Your task to perform on an android device: set default search engine in the chrome app Image 0: 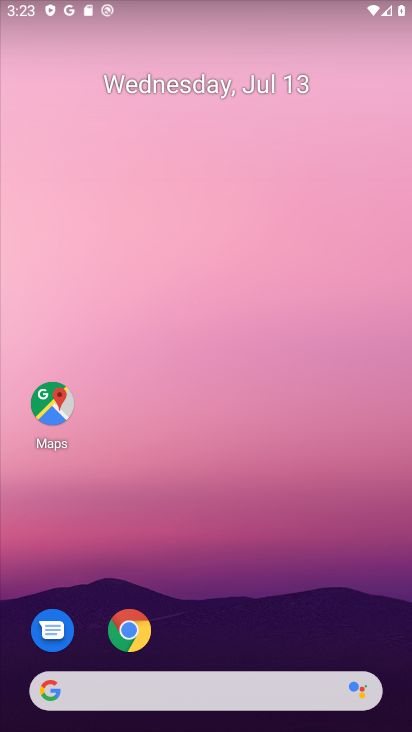
Step 0: drag from (197, 521) to (182, 112)
Your task to perform on an android device: set default search engine in the chrome app Image 1: 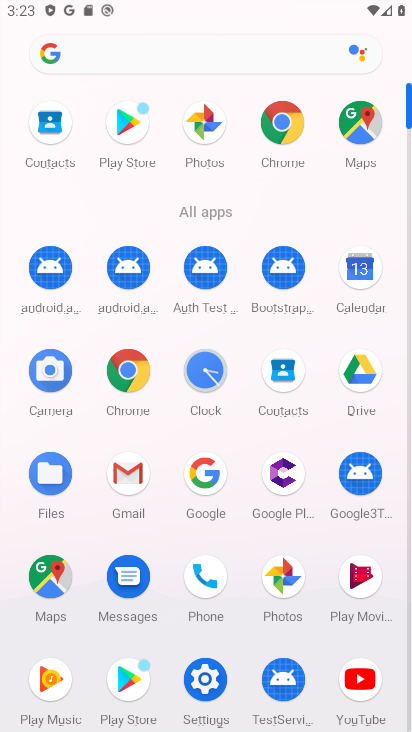
Step 1: click (288, 128)
Your task to perform on an android device: set default search engine in the chrome app Image 2: 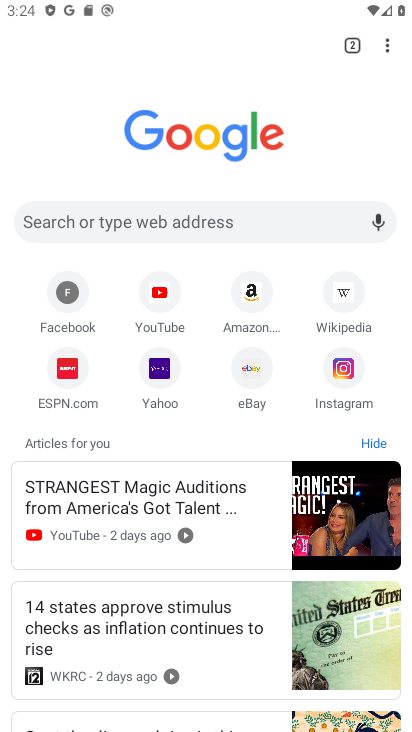
Step 2: click (384, 44)
Your task to perform on an android device: set default search engine in the chrome app Image 3: 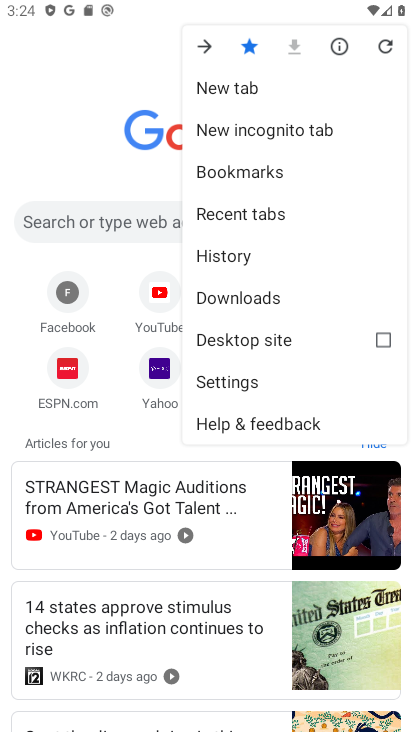
Step 3: click (225, 385)
Your task to perform on an android device: set default search engine in the chrome app Image 4: 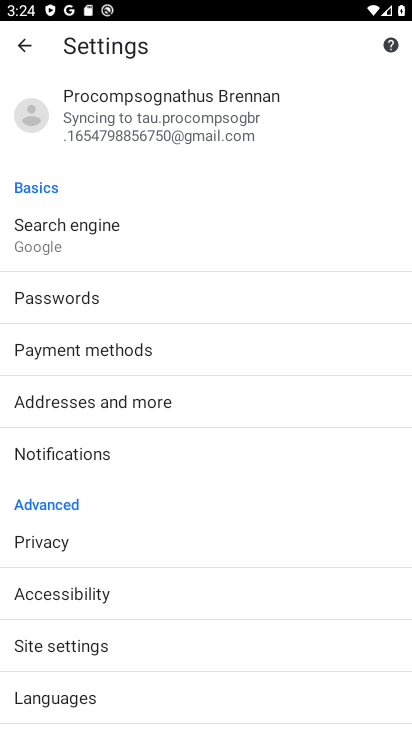
Step 4: click (70, 245)
Your task to perform on an android device: set default search engine in the chrome app Image 5: 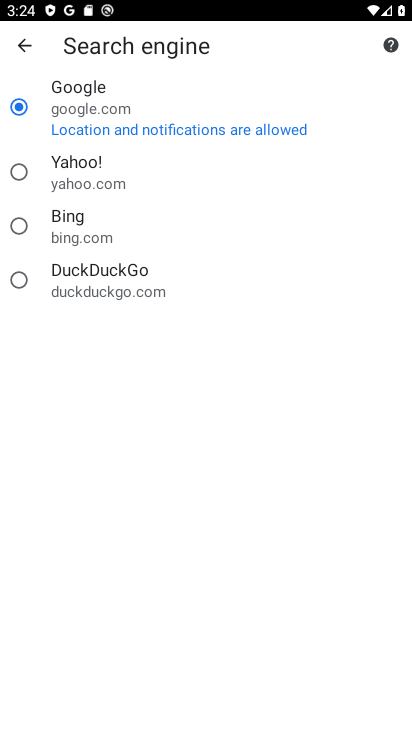
Step 5: click (26, 169)
Your task to perform on an android device: set default search engine in the chrome app Image 6: 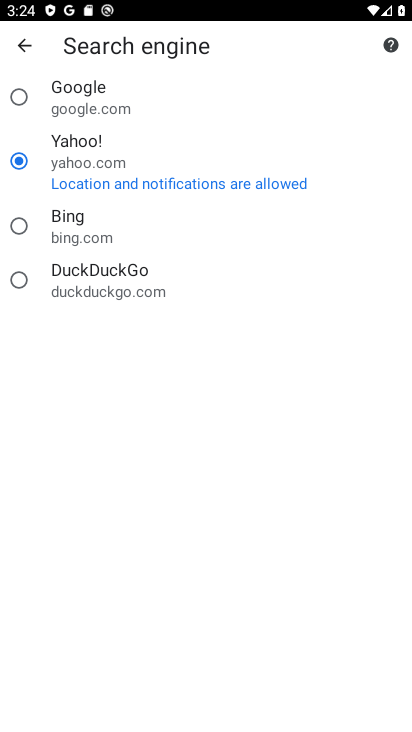
Step 6: task complete